Your task to perform on an android device: Find the nearest electronics store that's open now Image 0: 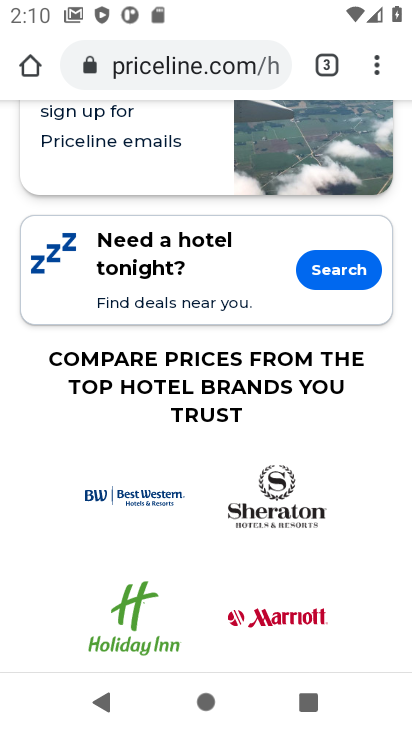
Step 0: press home button
Your task to perform on an android device: Find the nearest electronics store that's open now Image 1: 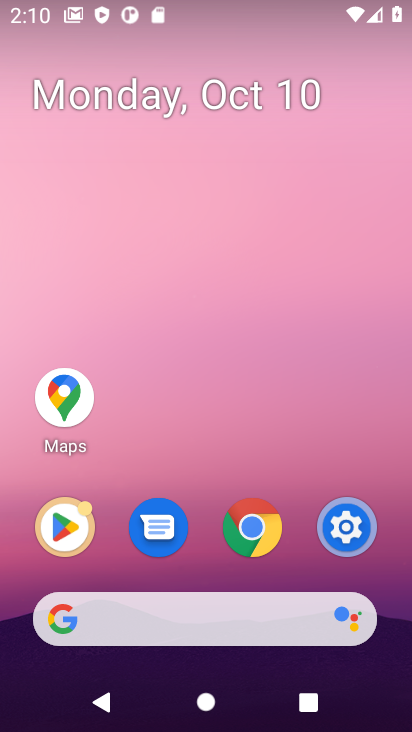
Step 1: click (267, 620)
Your task to perform on an android device: Find the nearest electronics store that's open now Image 2: 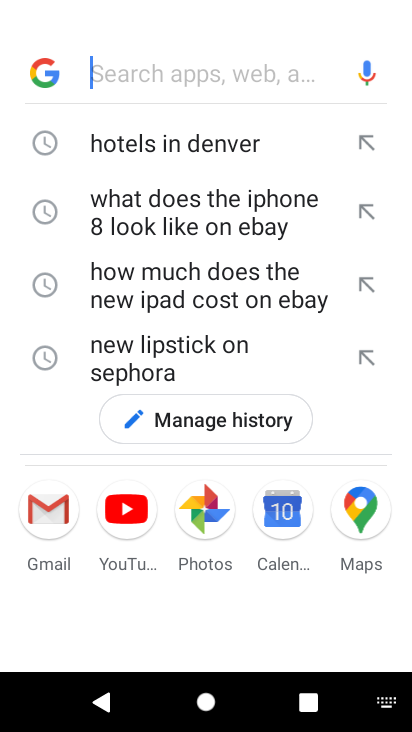
Step 2: type "Find the nearest electronics store that's open now"
Your task to perform on an android device: Find the nearest electronics store that's open now Image 3: 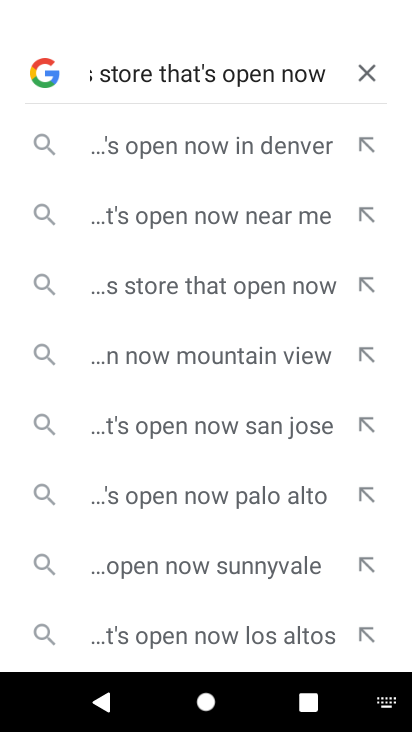
Step 3: press enter
Your task to perform on an android device: Find the nearest electronics store that's open now Image 4: 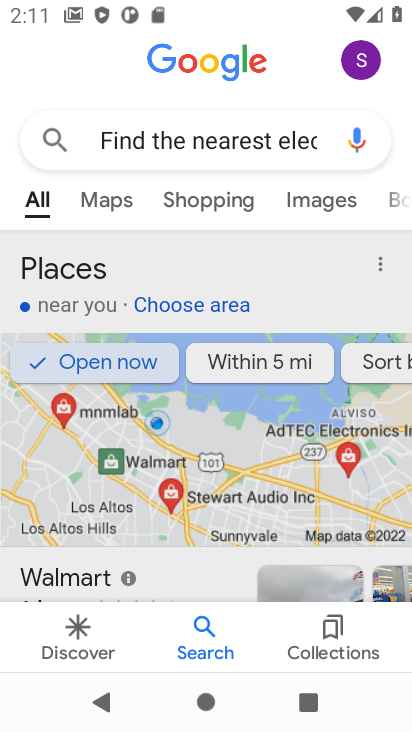
Step 4: task complete